Your task to perform on an android device: Open internet settings Image 0: 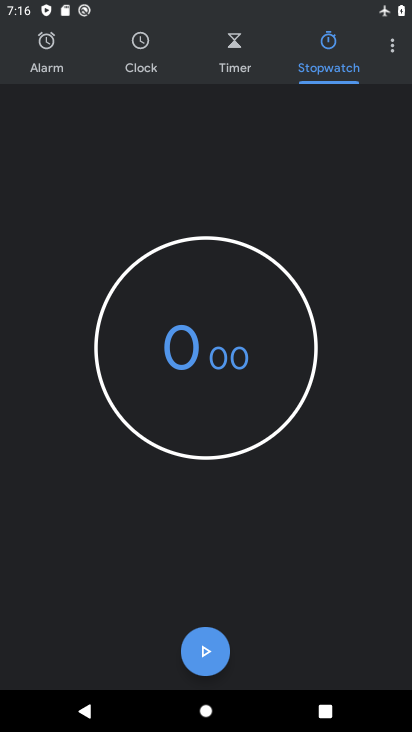
Step 0: press home button
Your task to perform on an android device: Open internet settings Image 1: 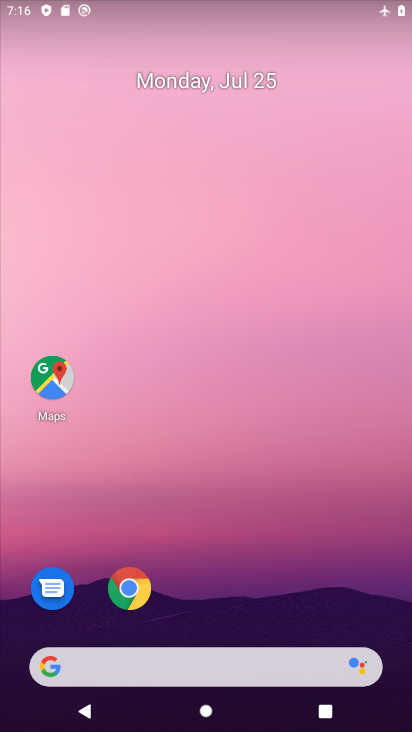
Step 1: drag from (246, 554) to (232, 225)
Your task to perform on an android device: Open internet settings Image 2: 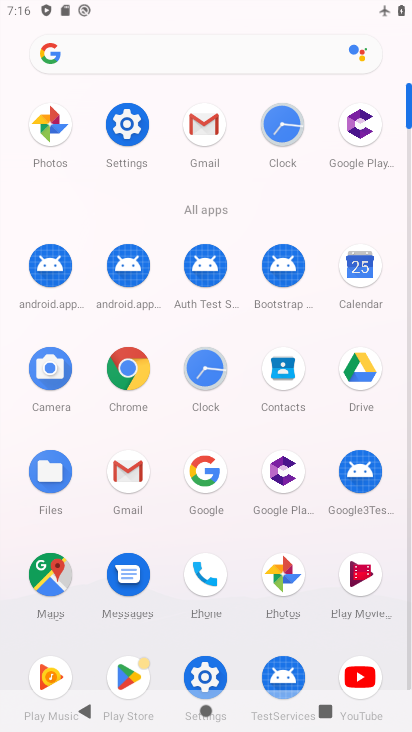
Step 2: click (133, 130)
Your task to perform on an android device: Open internet settings Image 3: 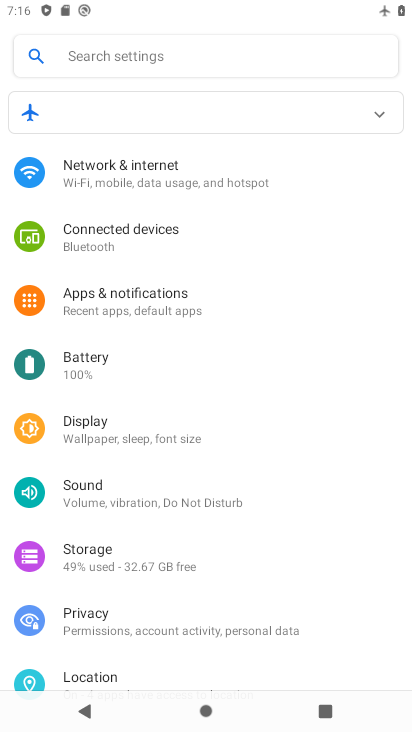
Step 3: click (79, 171)
Your task to perform on an android device: Open internet settings Image 4: 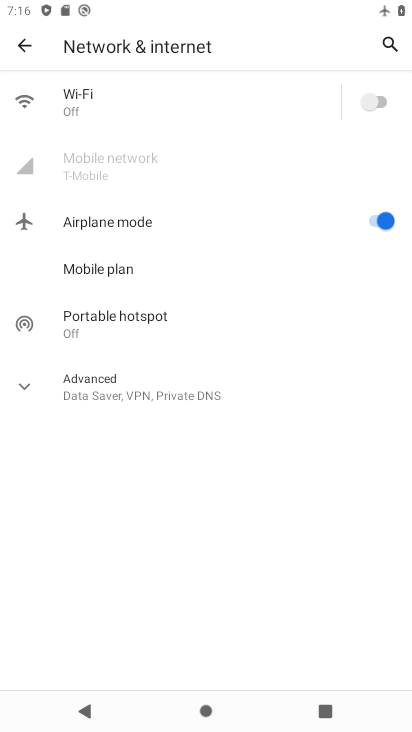
Step 4: task complete